Your task to perform on an android device: Search for Italian restaurants on Maps Image 0: 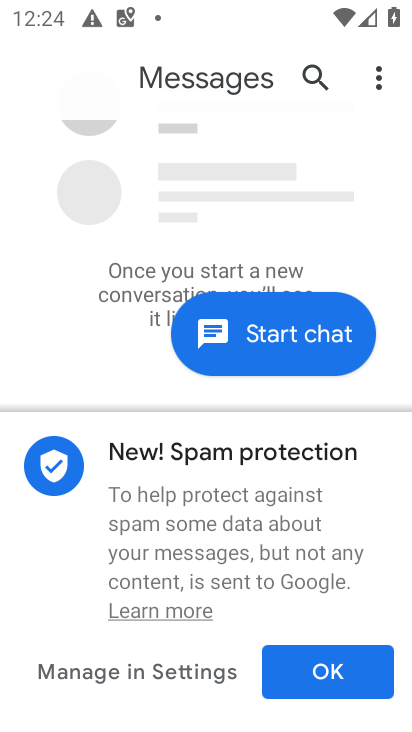
Step 0: press home button
Your task to perform on an android device: Search for Italian restaurants on Maps Image 1: 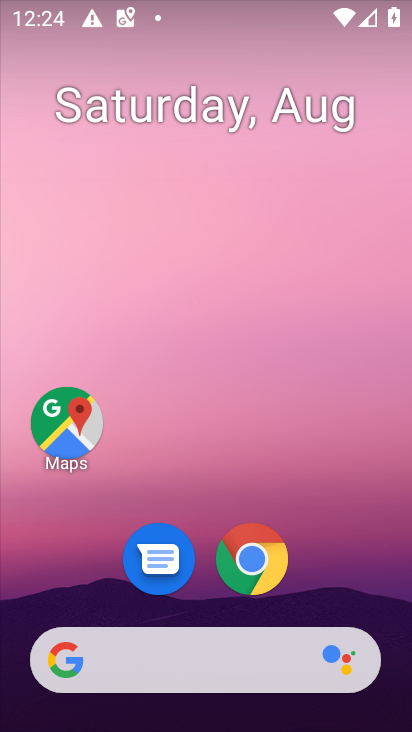
Step 1: click (73, 410)
Your task to perform on an android device: Search for Italian restaurants on Maps Image 2: 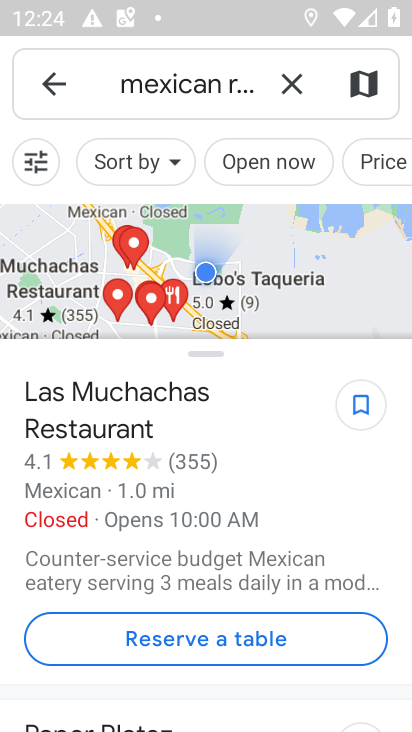
Step 2: click (283, 91)
Your task to perform on an android device: Search for Italian restaurants on Maps Image 3: 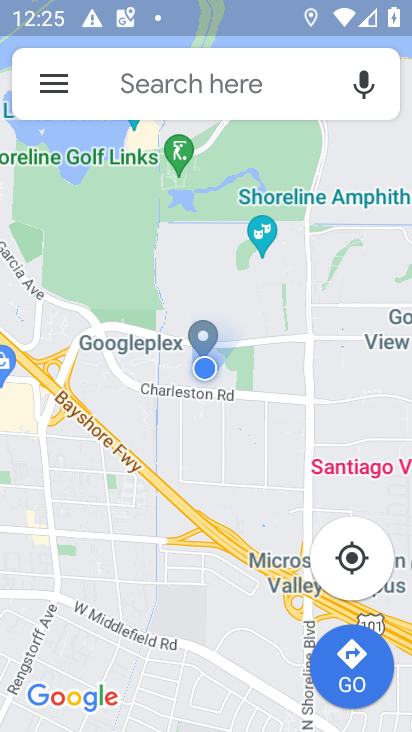
Step 3: click (219, 98)
Your task to perform on an android device: Search for Italian restaurants on Maps Image 4: 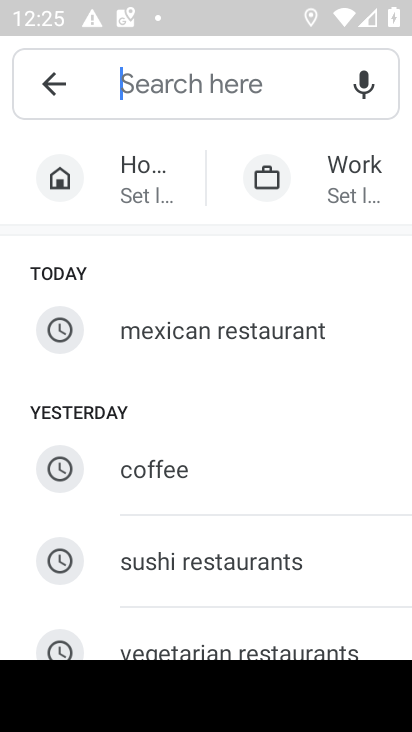
Step 4: type "Italian restaurants"
Your task to perform on an android device: Search for Italian restaurants on Maps Image 5: 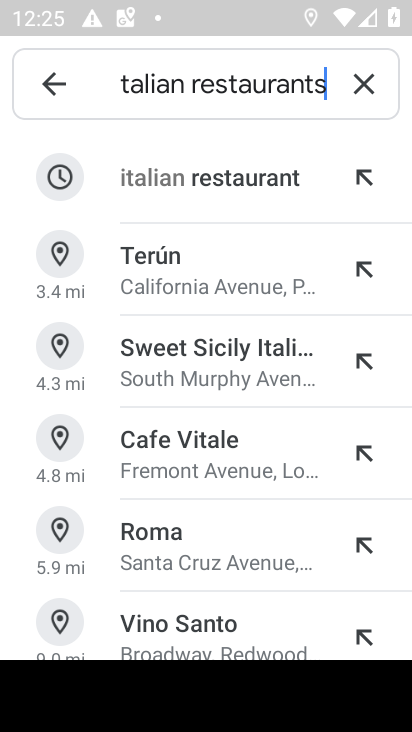
Step 5: click (288, 197)
Your task to perform on an android device: Search for Italian restaurants on Maps Image 6: 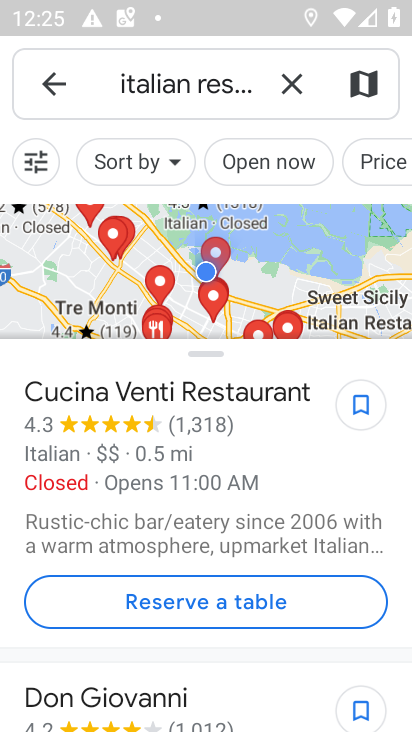
Step 6: task complete